Your task to perform on an android device: turn on the 12-hour format for clock Image 0: 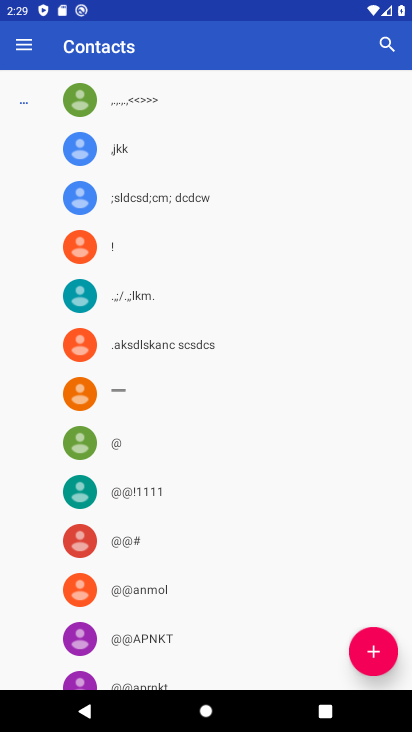
Step 0: press home button
Your task to perform on an android device: turn on the 12-hour format for clock Image 1: 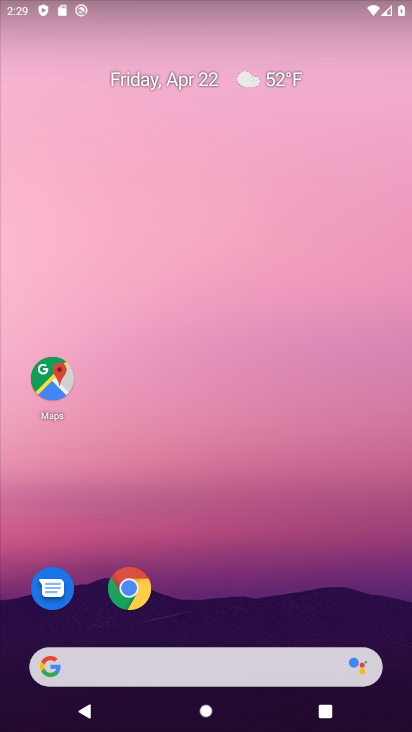
Step 1: drag from (317, 628) to (338, 20)
Your task to perform on an android device: turn on the 12-hour format for clock Image 2: 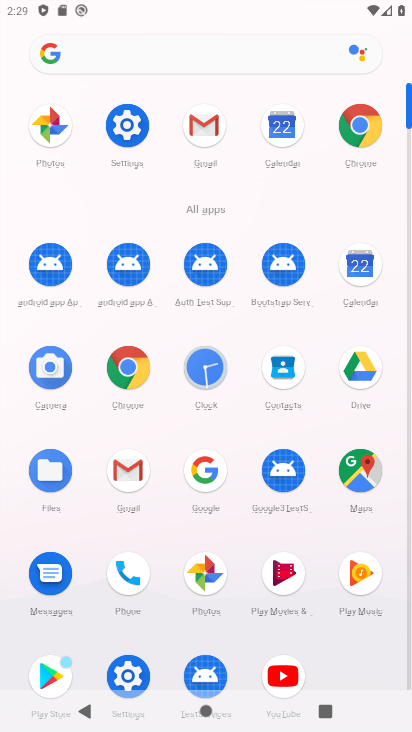
Step 2: click (198, 372)
Your task to perform on an android device: turn on the 12-hour format for clock Image 3: 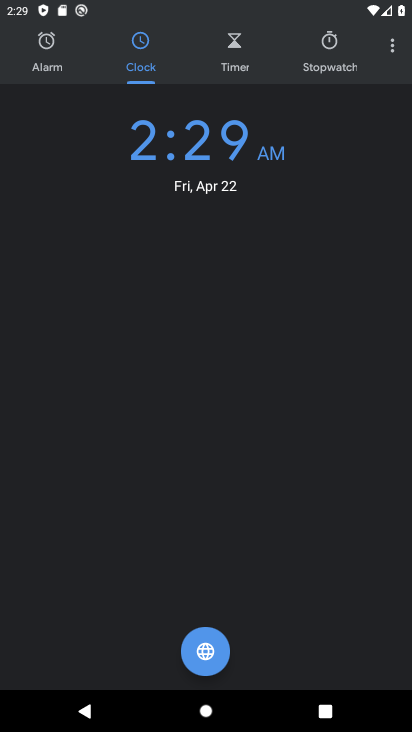
Step 3: click (389, 51)
Your task to perform on an android device: turn on the 12-hour format for clock Image 4: 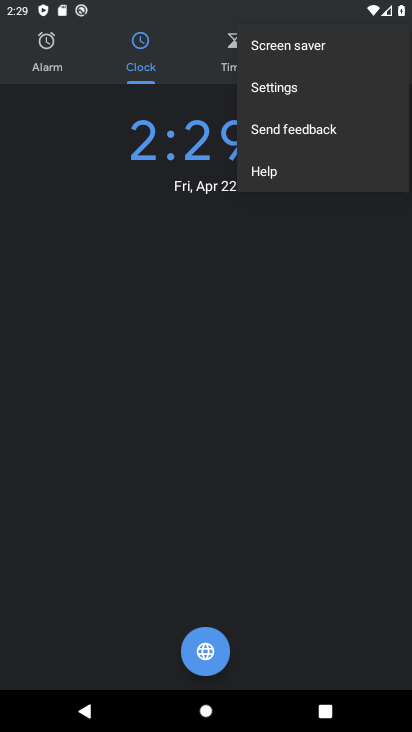
Step 4: click (301, 92)
Your task to perform on an android device: turn on the 12-hour format for clock Image 5: 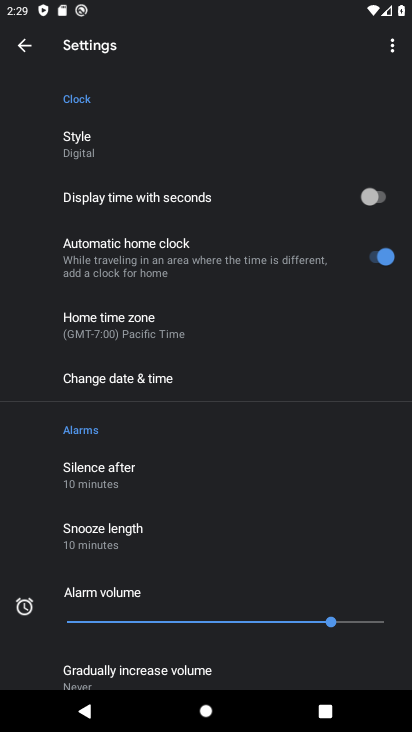
Step 5: click (134, 386)
Your task to perform on an android device: turn on the 12-hour format for clock Image 6: 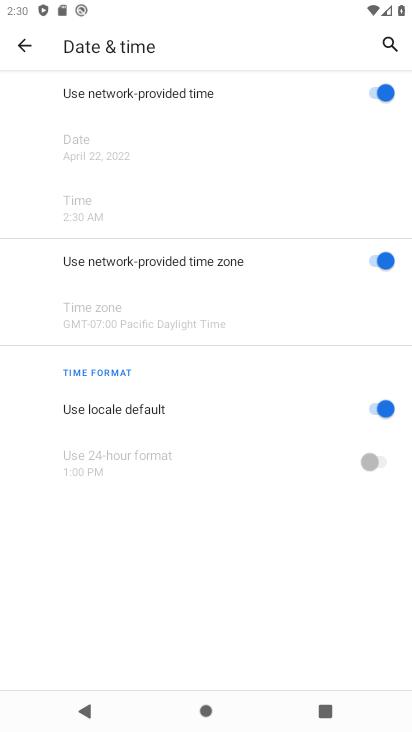
Step 6: task complete